Your task to perform on an android device: set default search engine in the chrome app Image 0: 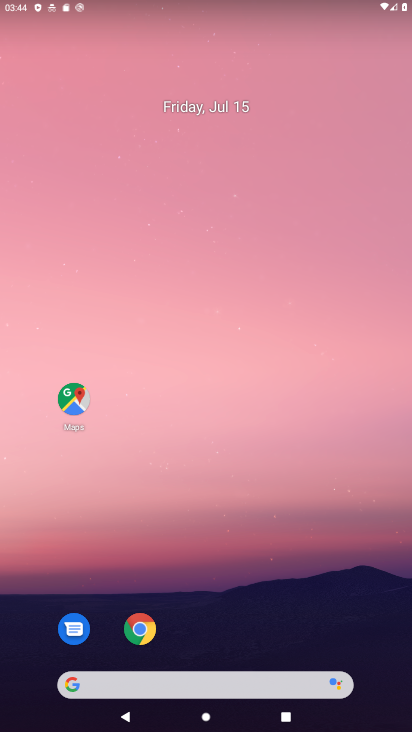
Step 0: drag from (219, 404) to (267, 0)
Your task to perform on an android device: set default search engine in the chrome app Image 1: 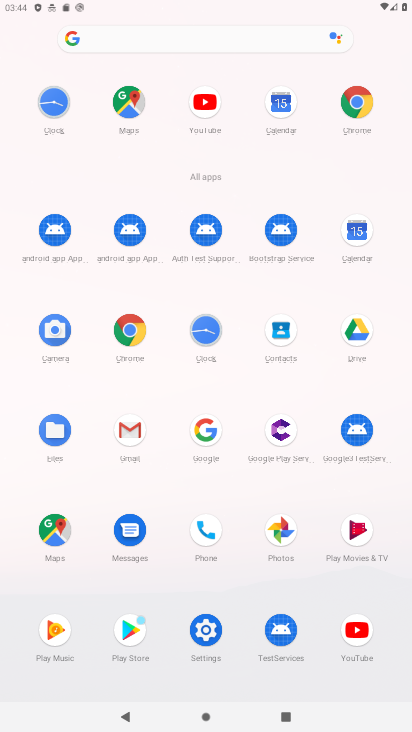
Step 1: click (353, 106)
Your task to perform on an android device: set default search engine in the chrome app Image 2: 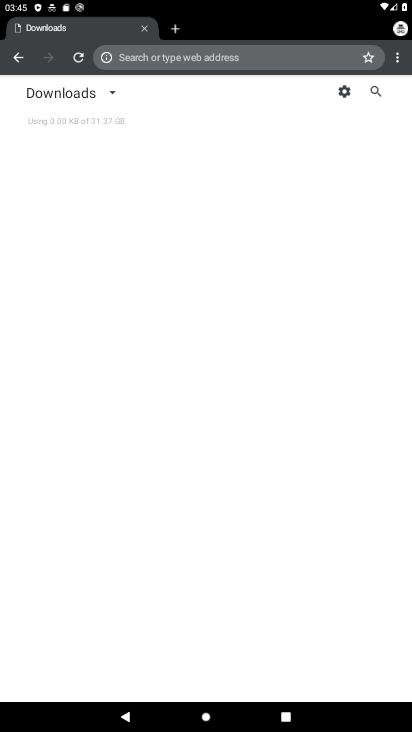
Step 2: drag from (400, 69) to (300, 228)
Your task to perform on an android device: set default search engine in the chrome app Image 3: 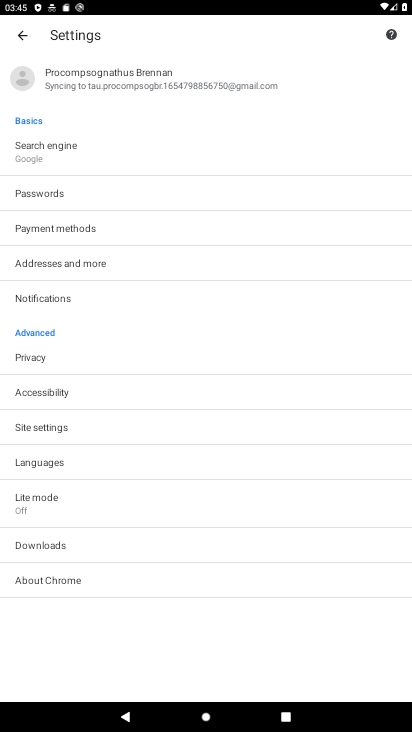
Step 3: click (34, 152)
Your task to perform on an android device: set default search engine in the chrome app Image 4: 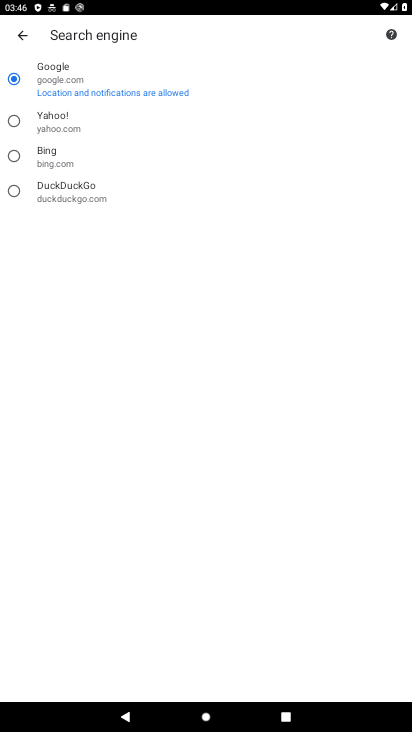
Step 4: task complete